Your task to perform on an android device: Open the calendar and show me this week's events Image 0: 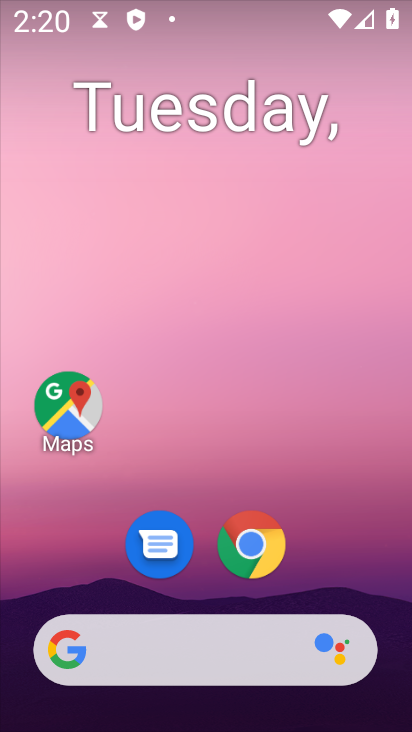
Step 0: drag from (342, 580) to (287, 1)
Your task to perform on an android device: Open the calendar and show me this week's events Image 1: 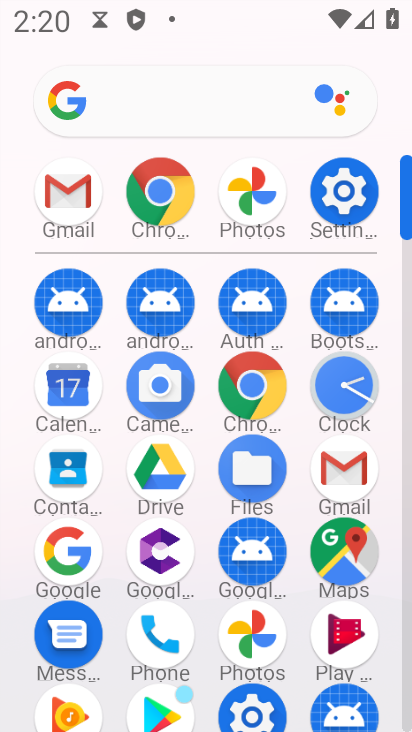
Step 1: drag from (21, 522) to (5, 190)
Your task to perform on an android device: Open the calendar and show me this week's events Image 2: 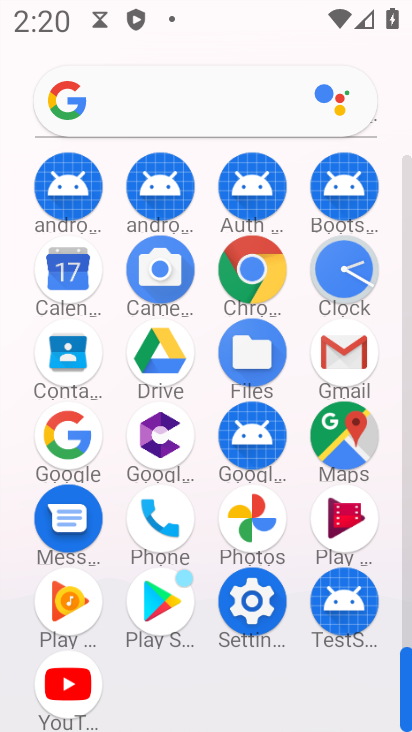
Step 2: click (68, 267)
Your task to perform on an android device: Open the calendar and show me this week's events Image 3: 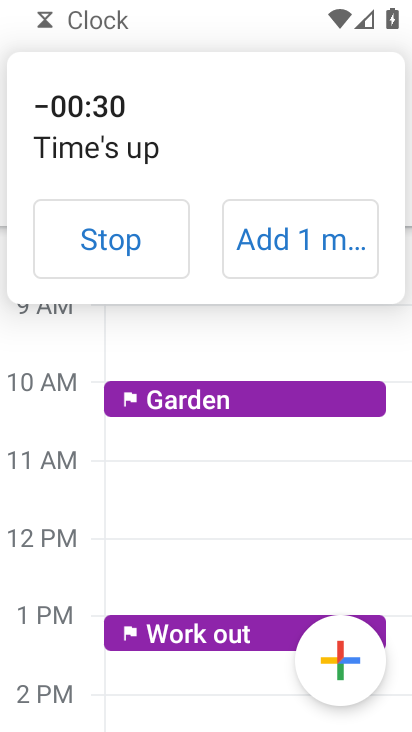
Step 3: click (138, 221)
Your task to perform on an android device: Open the calendar and show me this week's events Image 4: 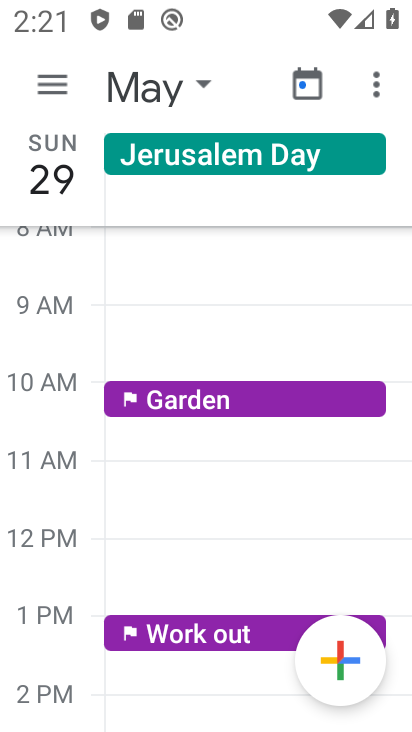
Step 4: click (316, 88)
Your task to perform on an android device: Open the calendar and show me this week's events Image 5: 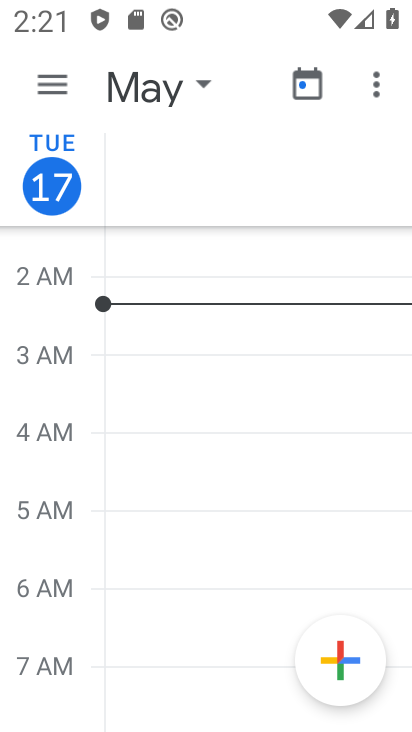
Step 5: click (44, 89)
Your task to perform on an android device: Open the calendar and show me this week's events Image 6: 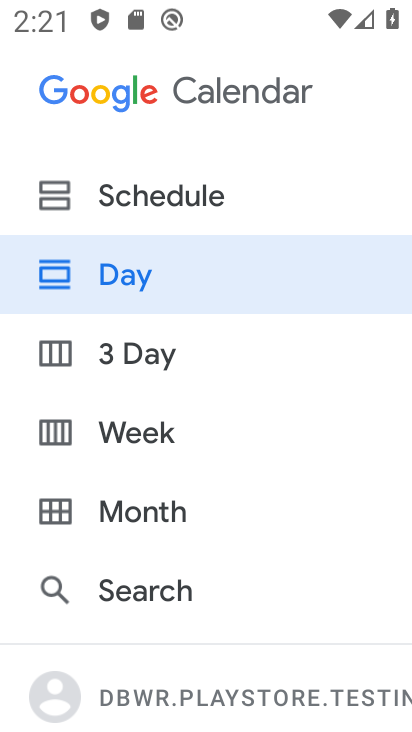
Step 6: click (146, 423)
Your task to perform on an android device: Open the calendar and show me this week's events Image 7: 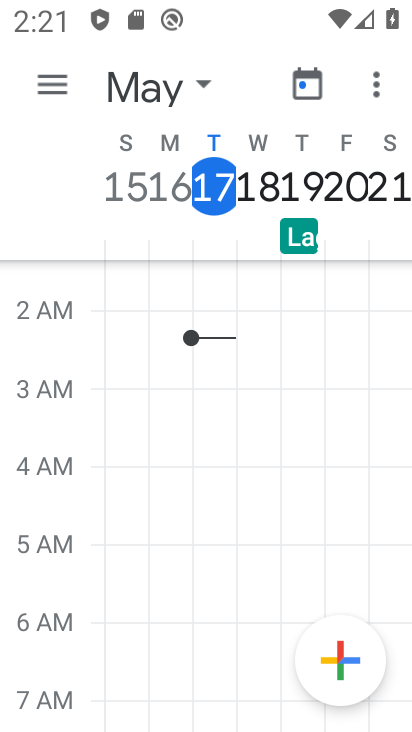
Step 7: task complete